Your task to perform on an android device: Check the news Image 0: 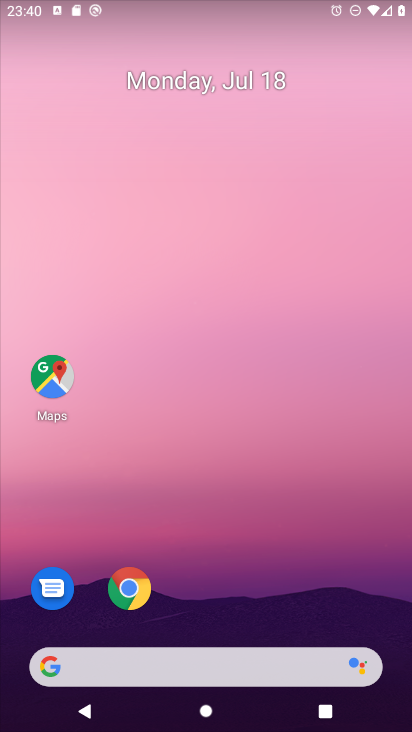
Step 0: drag from (1, 306) to (381, 360)
Your task to perform on an android device: Check the news Image 1: 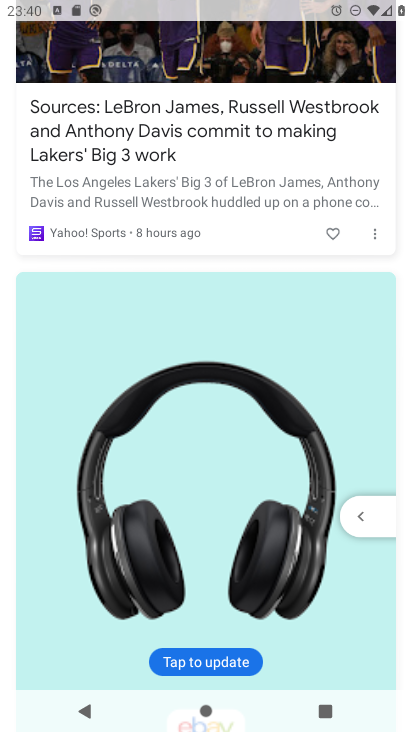
Step 1: task complete